Your task to perform on an android device: turn smart compose on in the gmail app Image 0: 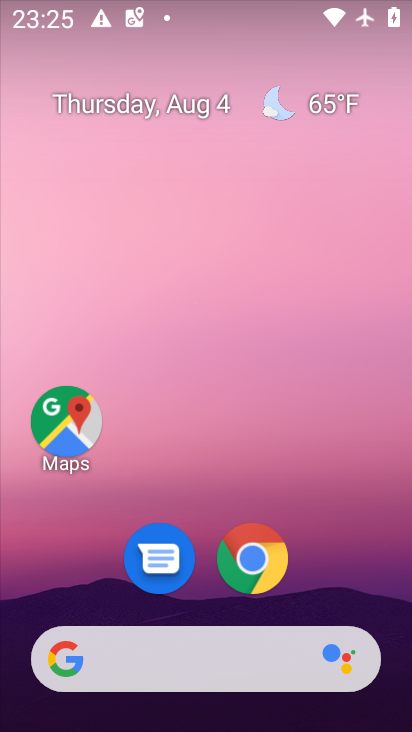
Step 0: drag from (374, 537) to (374, 45)
Your task to perform on an android device: turn smart compose on in the gmail app Image 1: 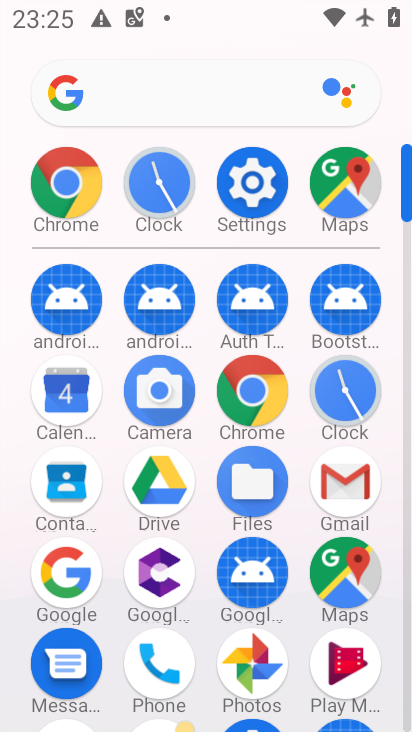
Step 1: click (336, 504)
Your task to perform on an android device: turn smart compose on in the gmail app Image 2: 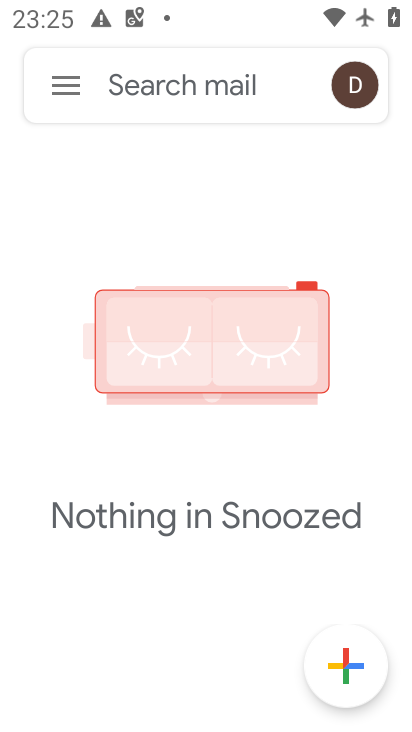
Step 2: click (62, 75)
Your task to perform on an android device: turn smart compose on in the gmail app Image 3: 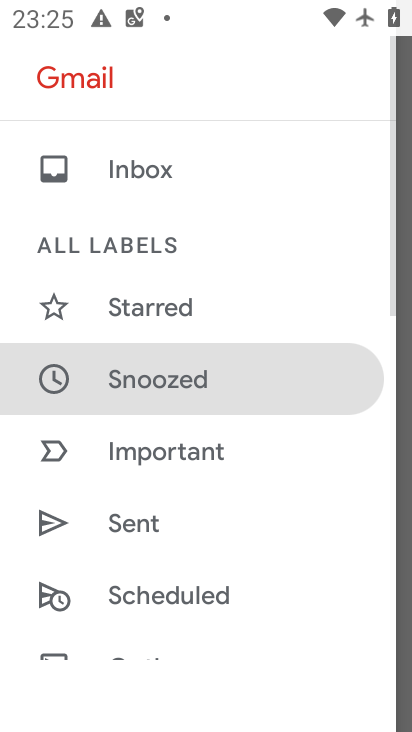
Step 3: drag from (203, 541) to (295, 39)
Your task to perform on an android device: turn smart compose on in the gmail app Image 4: 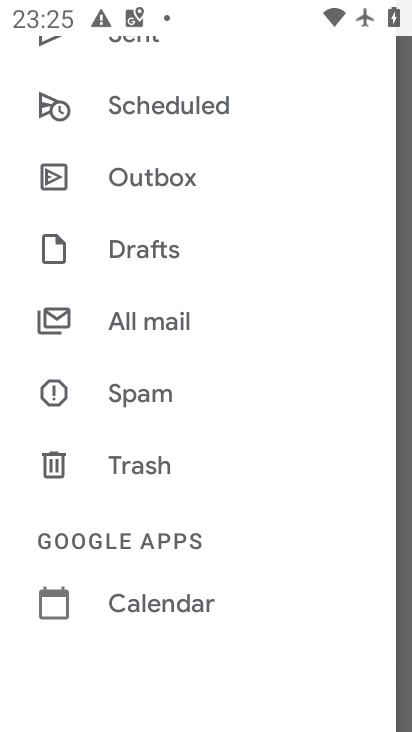
Step 4: drag from (256, 530) to (307, 154)
Your task to perform on an android device: turn smart compose on in the gmail app Image 5: 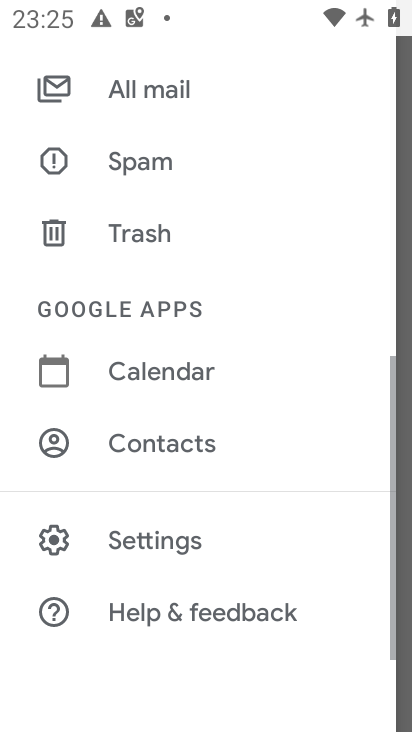
Step 5: click (196, 544)
Your task to perform on an android device: turn smart compose on in the gmail app Image 6: 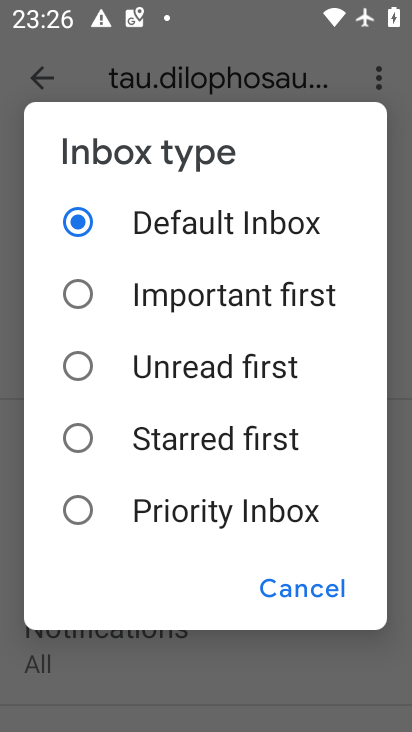
Step 6: click (319, 597)
Your task to perform on an android device: turn smart compose on in the gmail app Image 7: 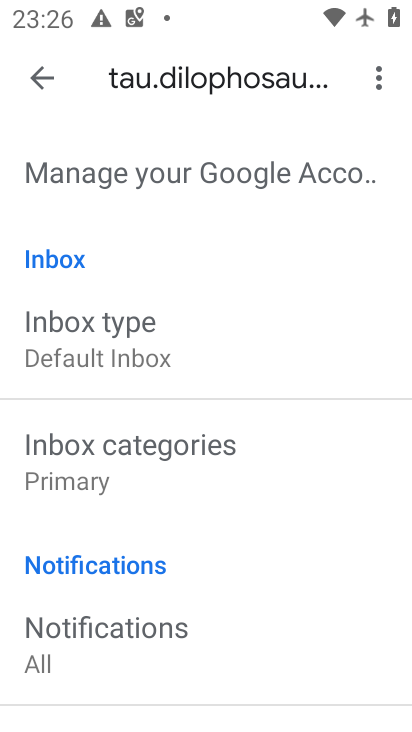
Step 7: task complete